Your task to perform on an android device: turn off location history Image 0: 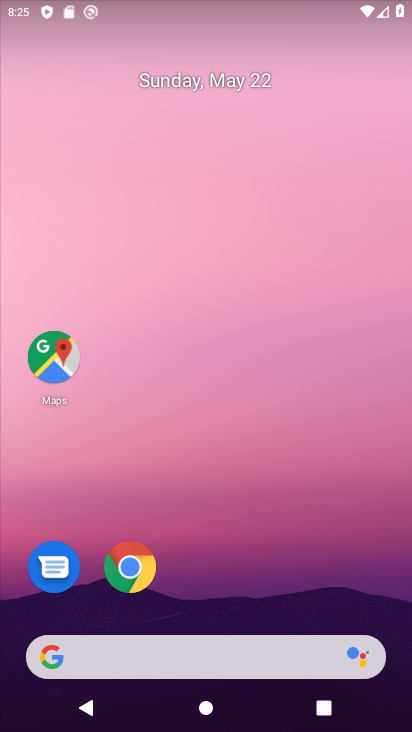
Step 0: drag from (284, 586) to (255, 148)
Your task to perform on an android device: turn off location history Image 1: 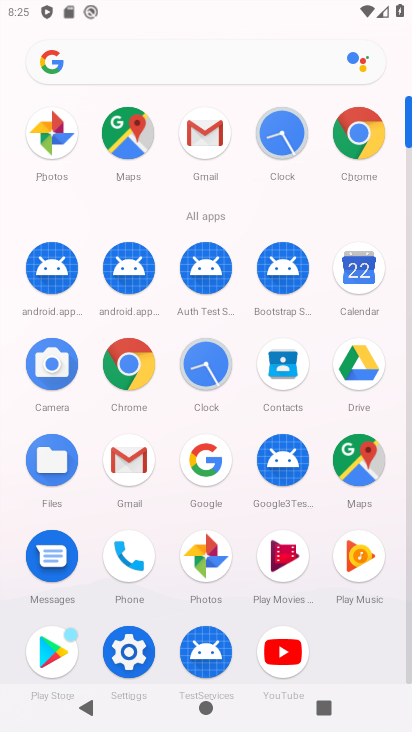
Step 1: click (126, 655)
Your task to perform on an android device: turn off location history Image 2: 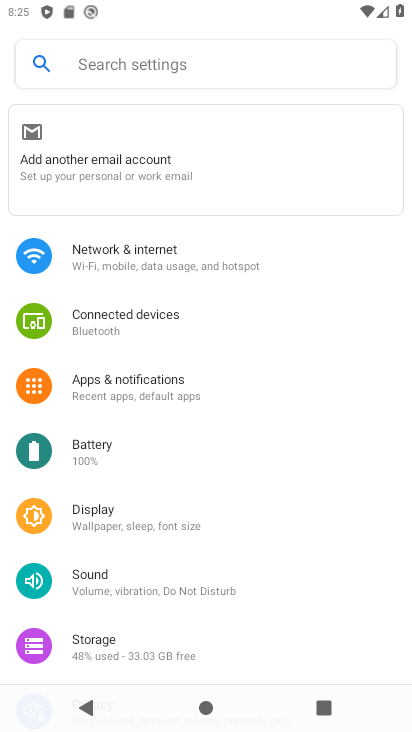
Step 2: drag from (154, 609) to (221, 118)
Your task to perform on an android device: turn off location history Image 3: 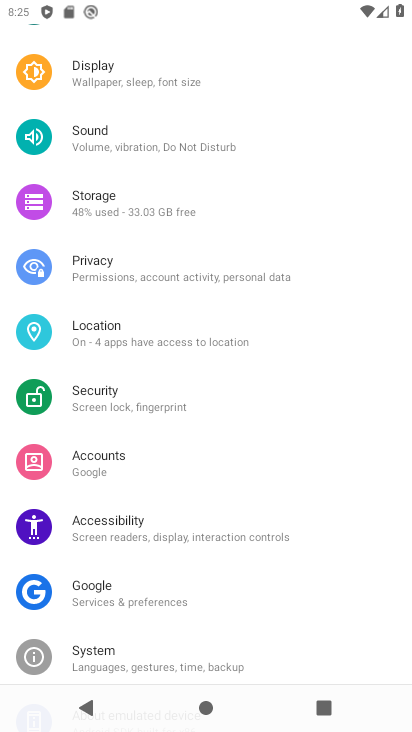
Step 3: click (154, 335)
Your task to perform on an android device: turn off location history Image 4: 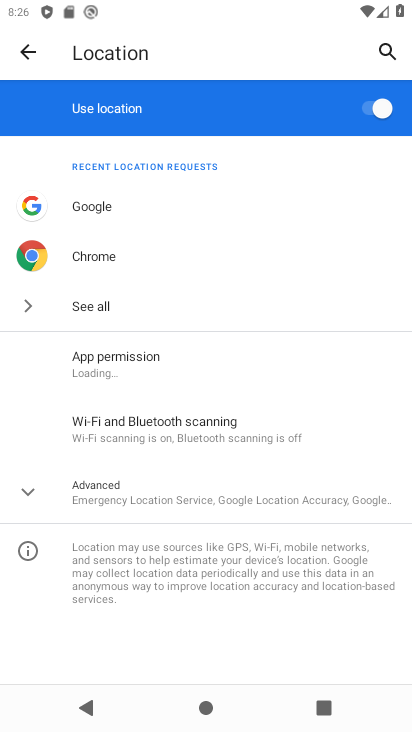
Step 4: click (146, 485)
Your task to perform on an android device: turn off location history Image 5: 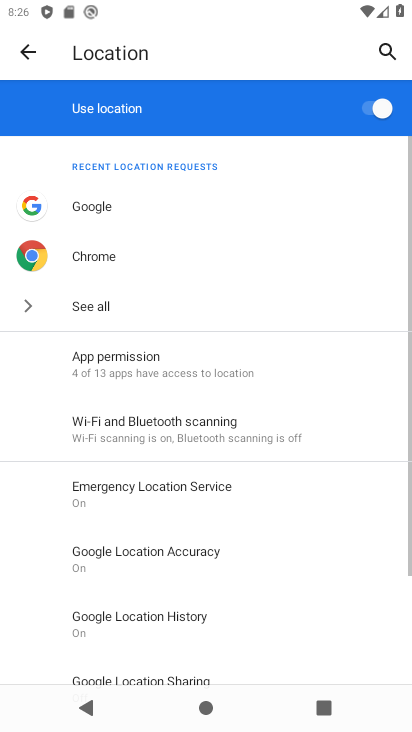
Step 5: click (169, 628)
Your task to perform on an android device: turn off location history Image 6: 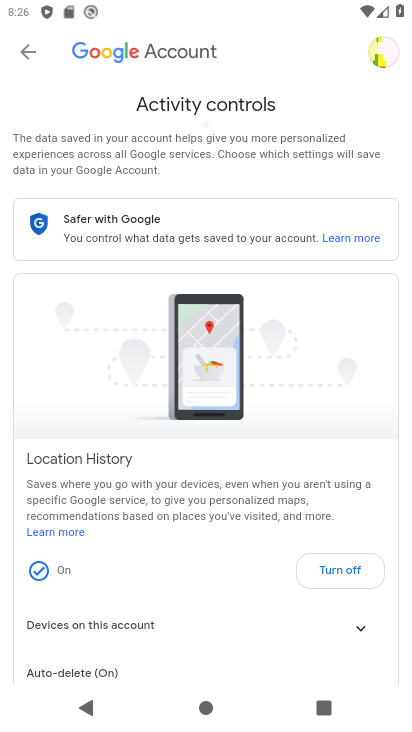
Step 6: click (327, 559)
Your task to perform on an android device: turn off location history Image 7: 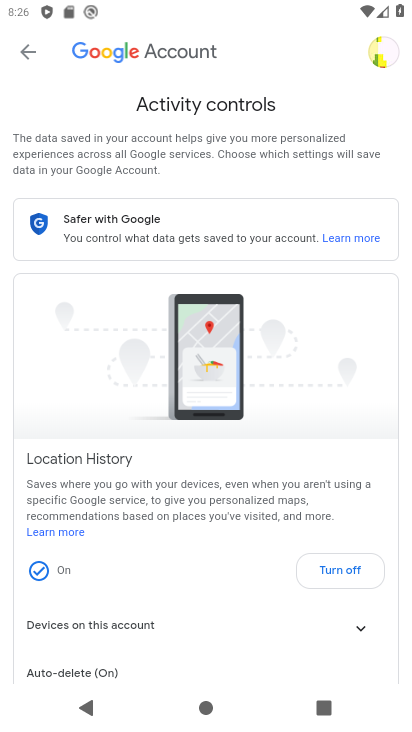
Step 7: click (327, 571)
Your task to perform on an android device: turn off location history Image 8: 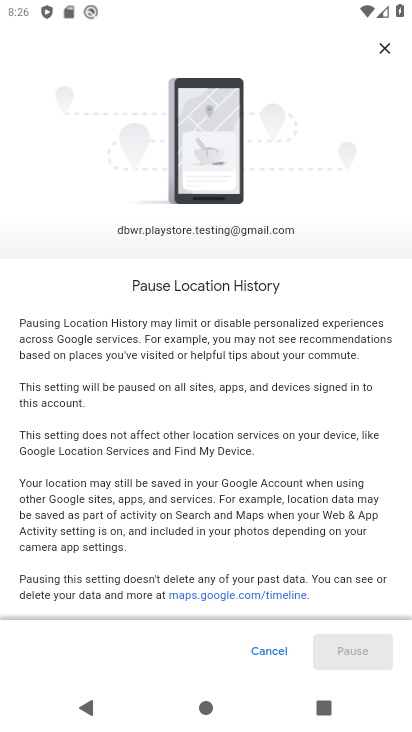
Step 8: drag from (310, 552) to (326, 120)
Your task to perform on an android device: turn off location history Image 9: 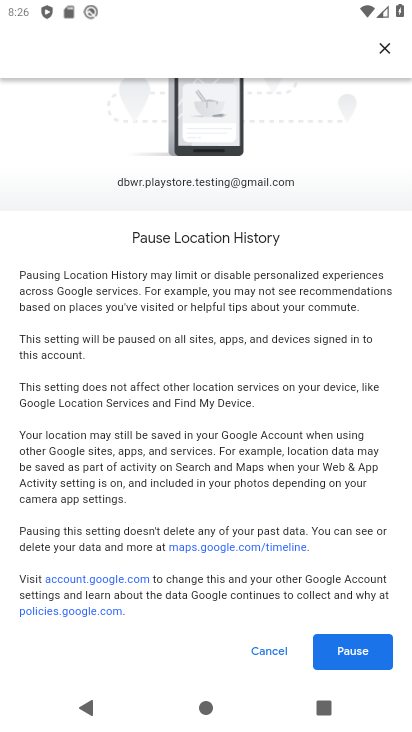
Step 9: click (356, 648)
Your task to perform on an android device: turn off location history Image 10: 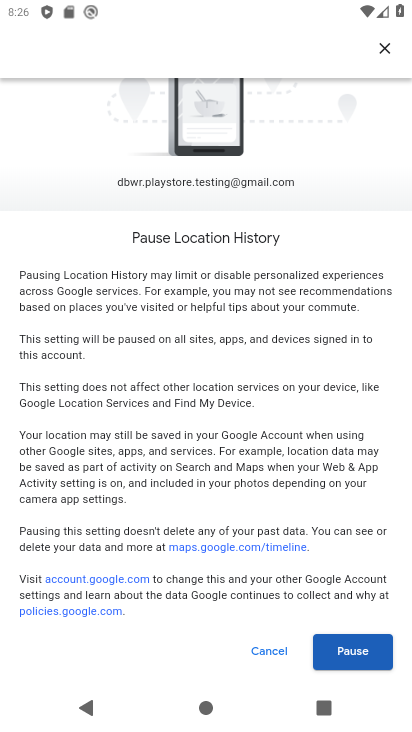
Step 10: click (368, 644)
Your task to perform on an android device: turn off location history Image 11: 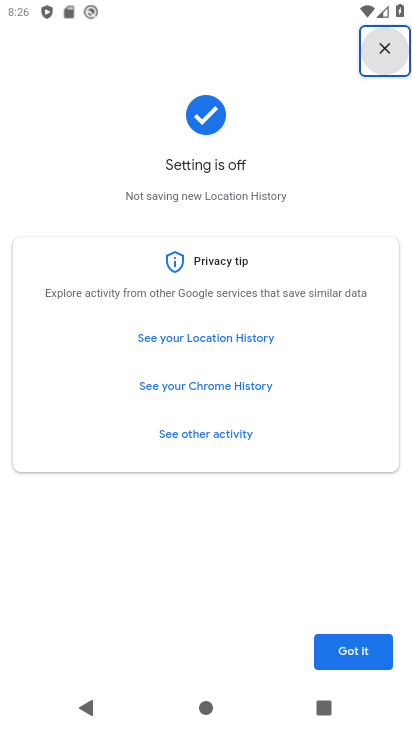
Step 11: task complete